Your task to perform on an android device: turn on location history Image 0: 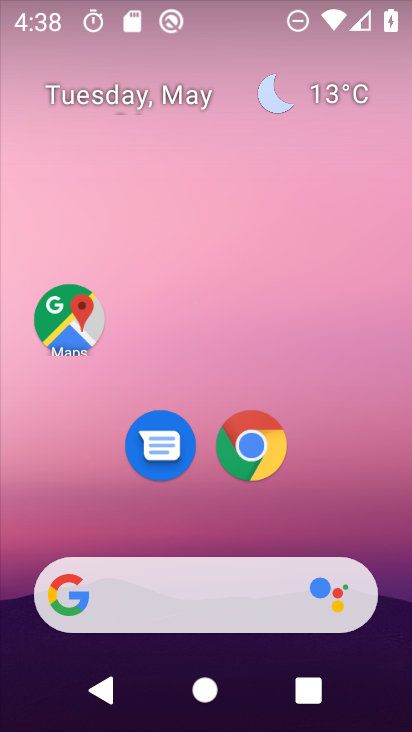
Step 0: drag from (211, 525) to (205, 53)
Your task to perform on an android device: turn on location history Image 1: 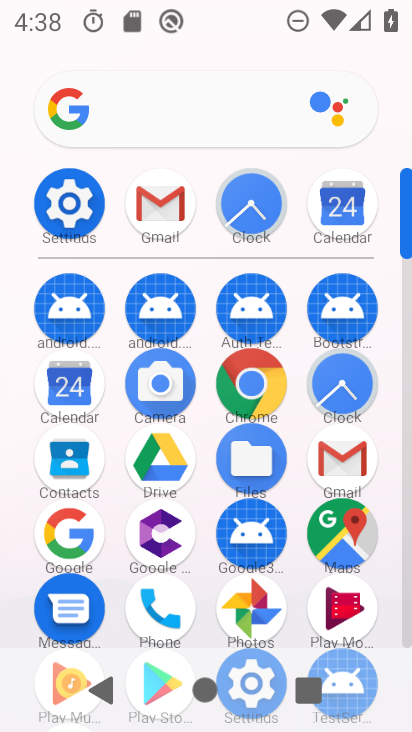
Step 1: click (63, 194)
Your task to perform on an android device: turn on location history Image 2: 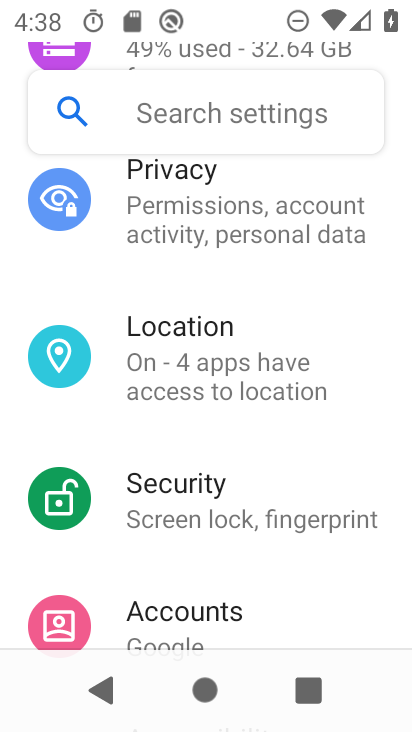
Step 2: click (110, 341)
Your task to perform on an android device: turn on location history Image 3: 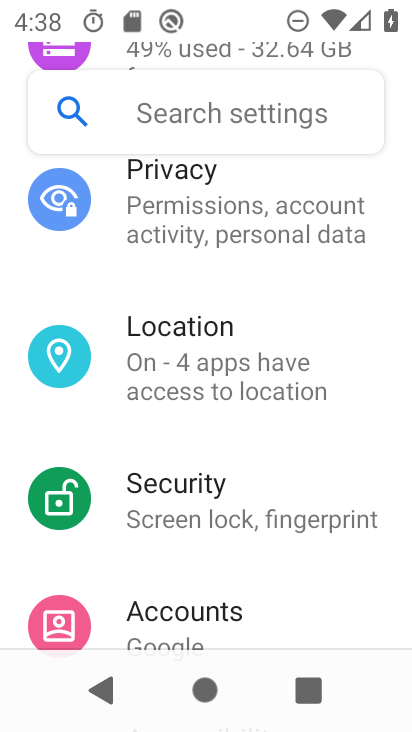
Step 3: click (110, 341)
Your task to perform on an android device: turn on location history Image 4: 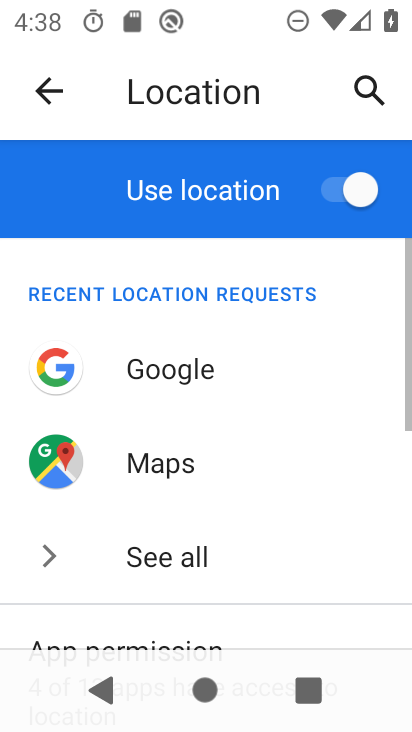
Step 4: drag from (226, 602) to (195, 260)
Your task to perform on an android device: turn on location history Image 5: 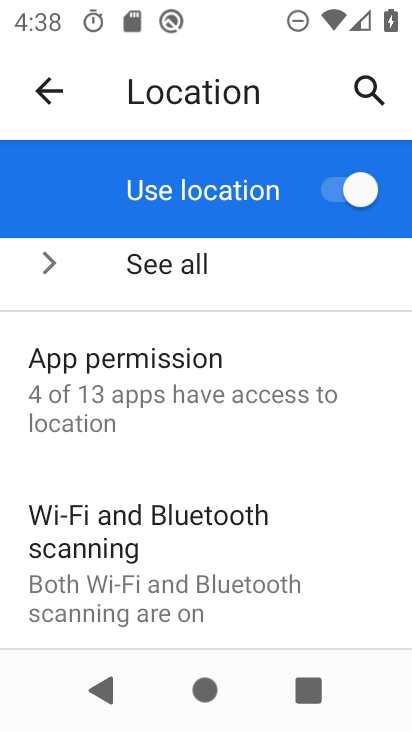
Step 5: drag from (248, 629) to (239, 229)
Your task to perform on an android device: turn on location history Image 6: 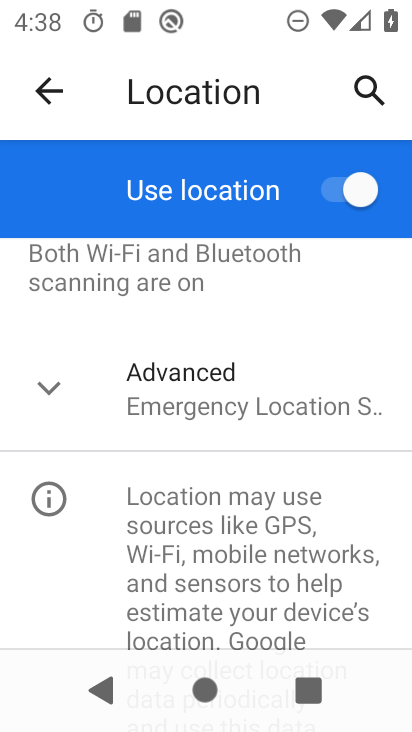
Step 6: click (54, 385)
Your task to perform on an android device: turn on location history Image 7: 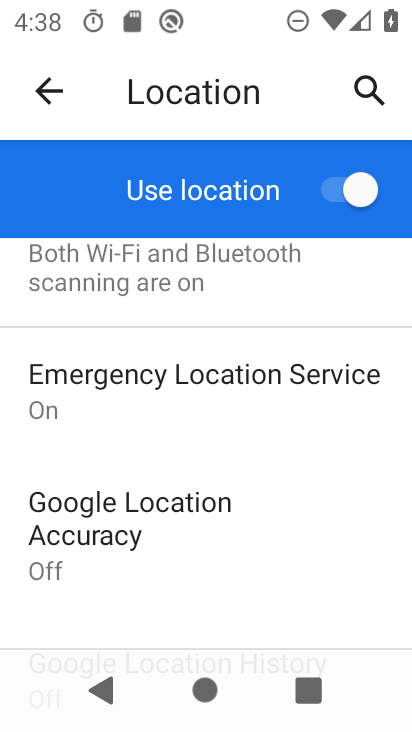
Step 7: drag from (183, 573) to (179, 350)
Your task to perform on an android device: turn on location history Image 8: 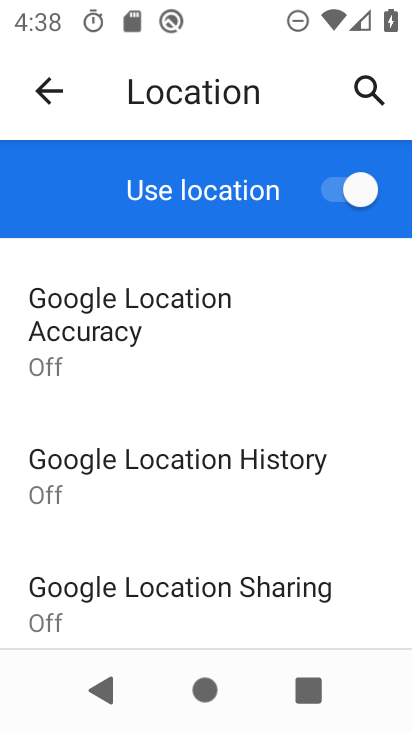
Step 8: click (117, 477)
Your task to perform on an android device: turn on location history Image 9: 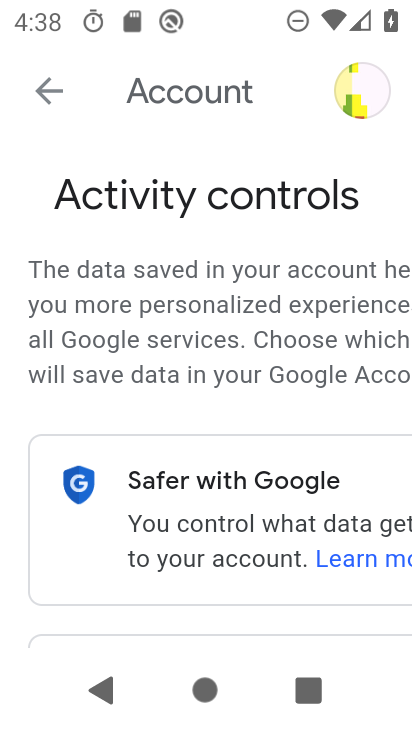
Step 9: task complete